Your task to perform on an android device: Search for 8K TVs on Best Buy. Image 0: 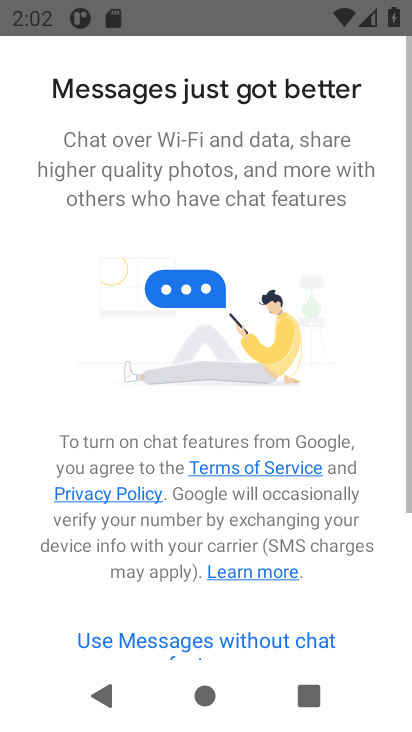
Step 0: press home button
Your task to perform on an android device: Search for 8K TVs on Best Buy. Image 1: 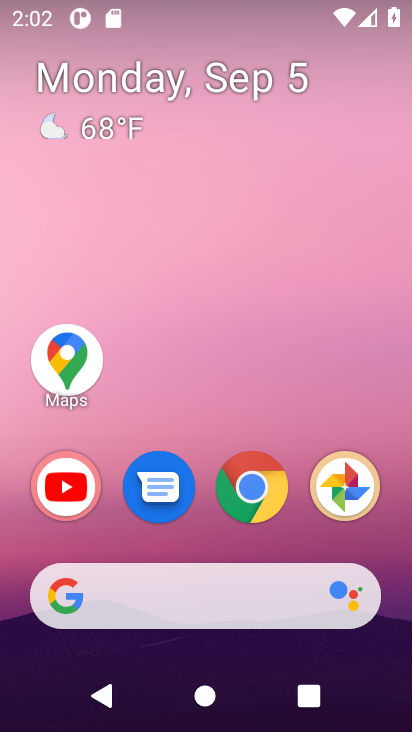
Step 1: click (255, 492)
Your task to perform on an android device: Search for 8K TVs on Best Buy. Image 2: 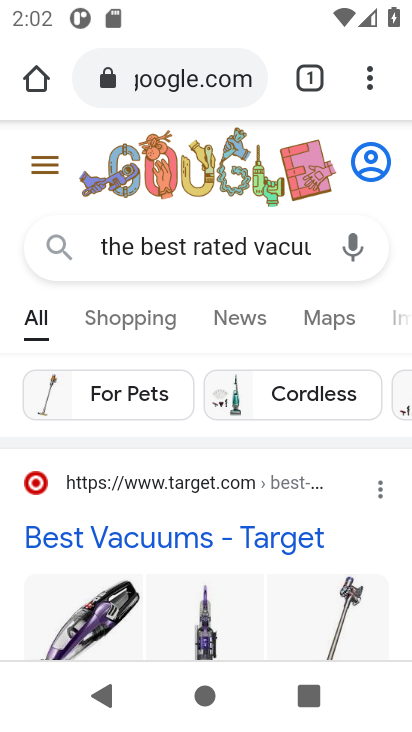
Step 2: click (183, 79)
Your task to perform on an android device: Search for 8K TVs on Best Buy. Image 3: 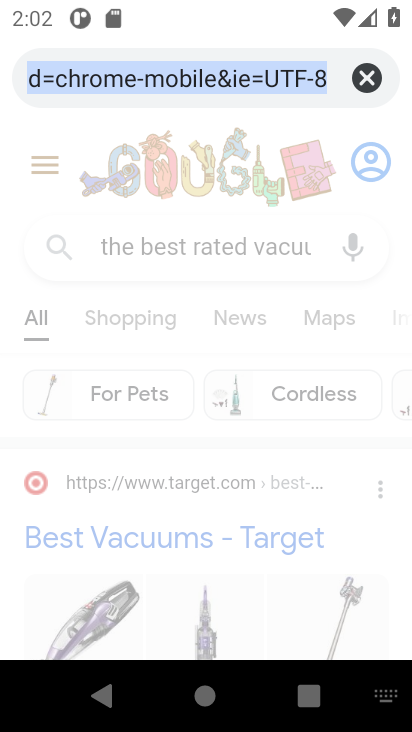
Step 3: click (363, 73)
Your task to perform on an android device: Search for 8K TVs on Best Buy. Image 4: 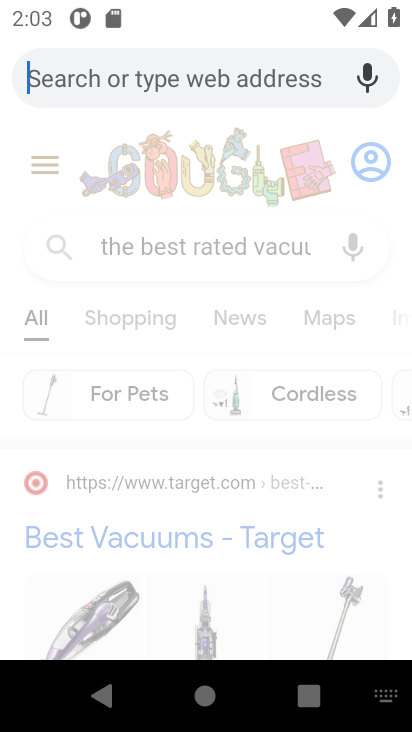
Step 4: type " 8K TVs on Best Buy."
Your task to perform on an android device: Search for 8K TVs on Best Buy. Image 5: 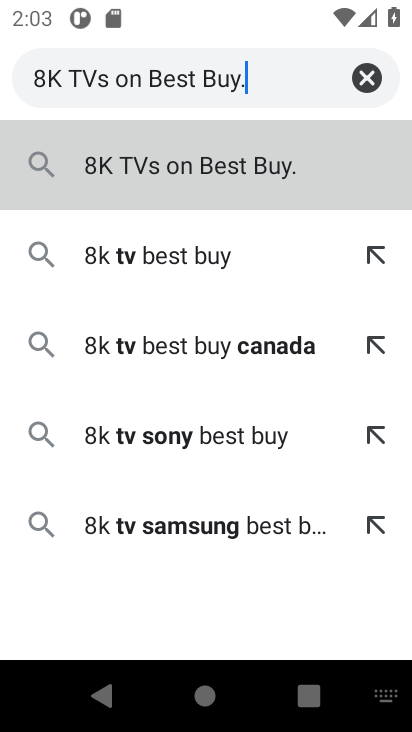
Step 5: click (200, 150)
Your task to perform on an android device: Search for 8K TVs on Best Buy. Image 6: 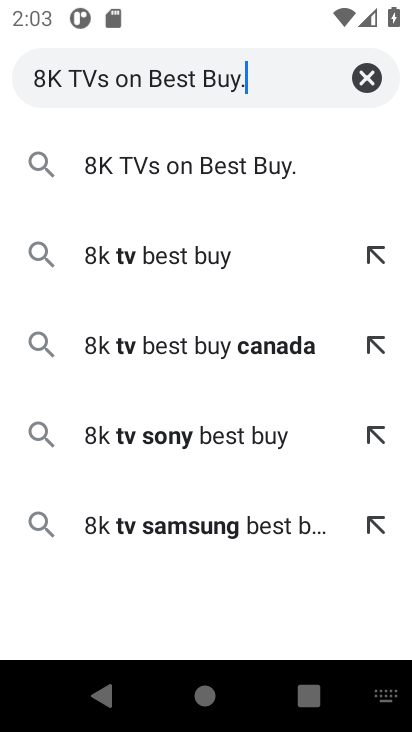
Step 6: click (201, 176)
Your task to perform on an android device: Search for 8K TVs on Best Buy. Image 7: 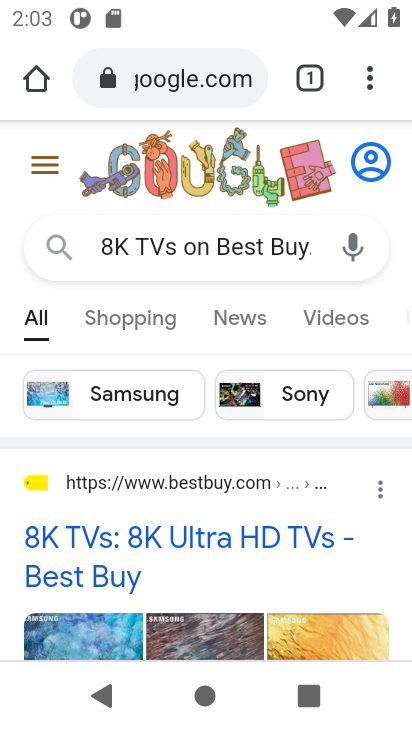
Step 7: task complete